Your task to perform on an android device: open chrome privacy settings Image 0: 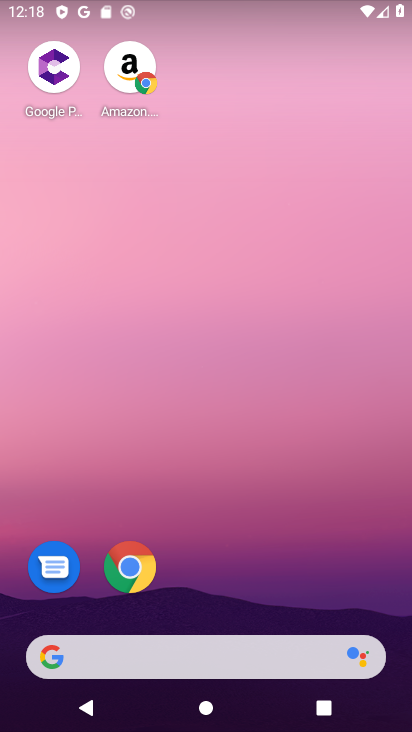
Step 0: click (129, 569)
Your task to perform on an android device: open chrome privacy settings Image 1: 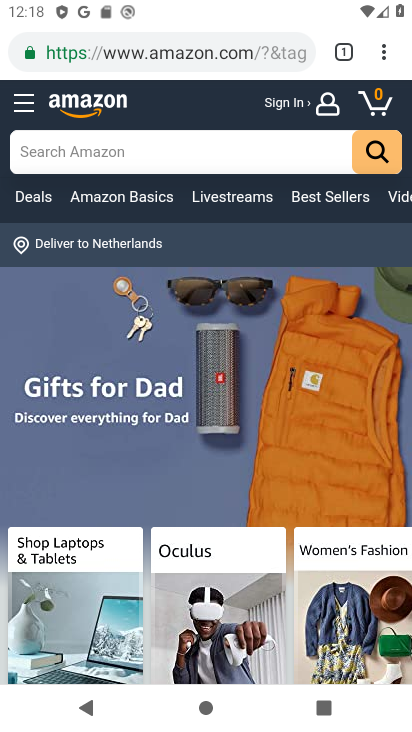
Step 1: click (383, 46)
Your task to perform on an android device: open chrome privacy settings Image 2: 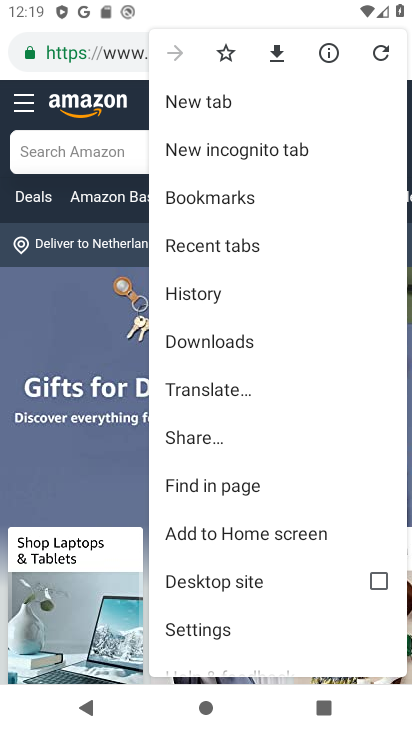
Step 2: drag from (241, 433) to (309, 347)
Your task to perform on an android device: open chrome privacy settings Image 3: 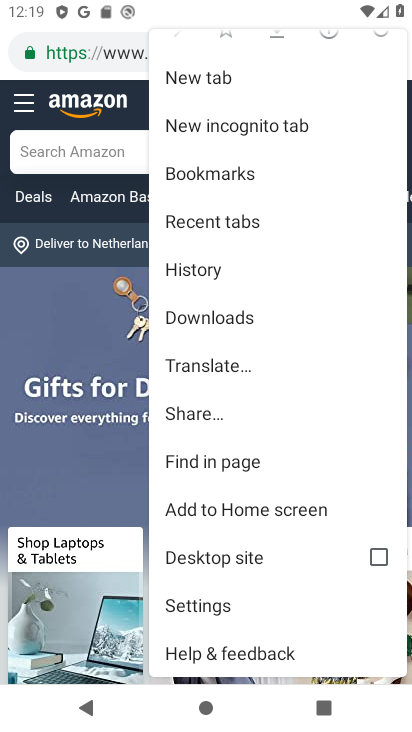
Step 3: drag from (267, 524) to (280, 432)
Your task to perform on an android device: open chrome privacy settings Image 4: 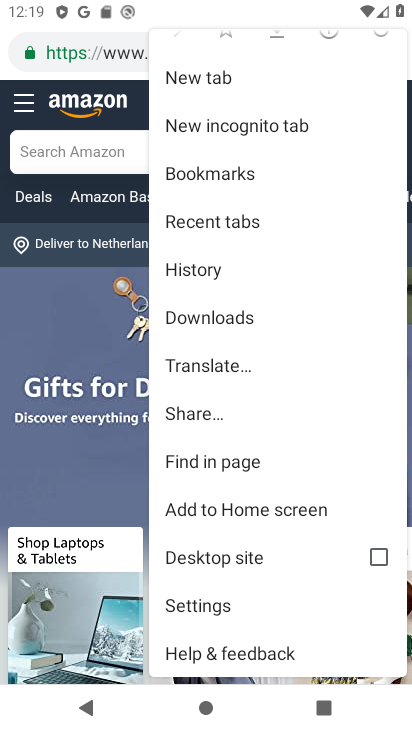
Step 4: click (226, 608)
Your task to perform on an android device: open chrome privacy settings Image 5: 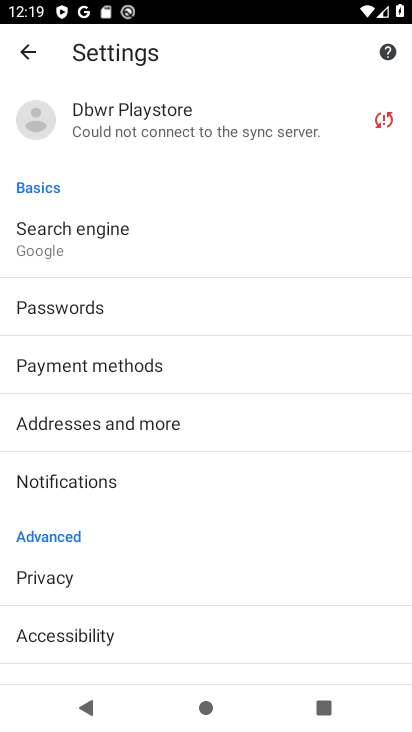
Step 5: click (56, 578)
Your task to perform on an android device: open chrome privacy settings Image 6: 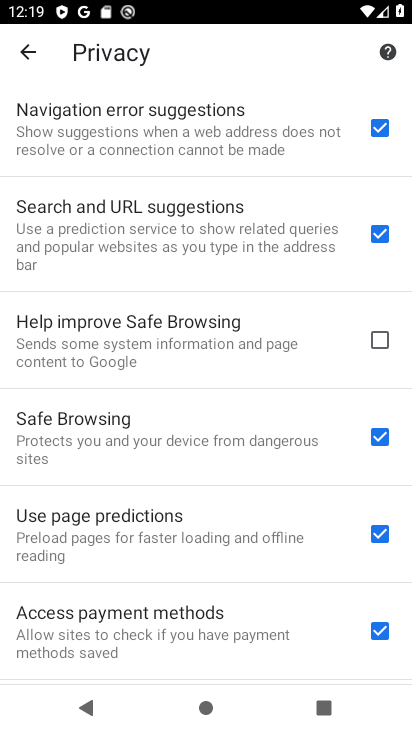
Step 6: task complete